Your task to perform on an android device: turn on the 12-hour format for clock Image 0: 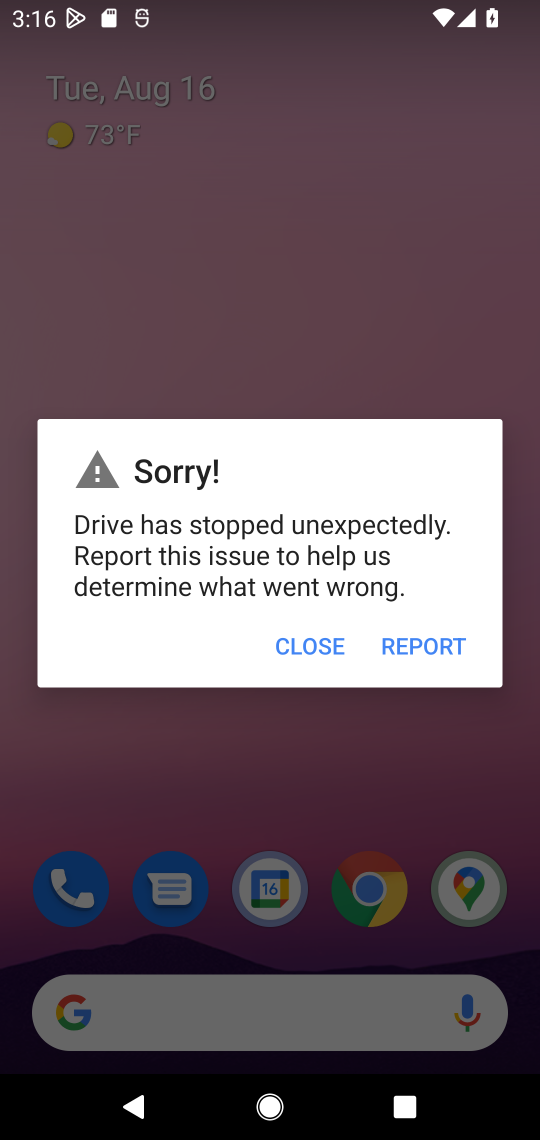
Step 0: click (295, 646)
Your task to perform on an android device: turn on the 12-hour format for clock Image 1: 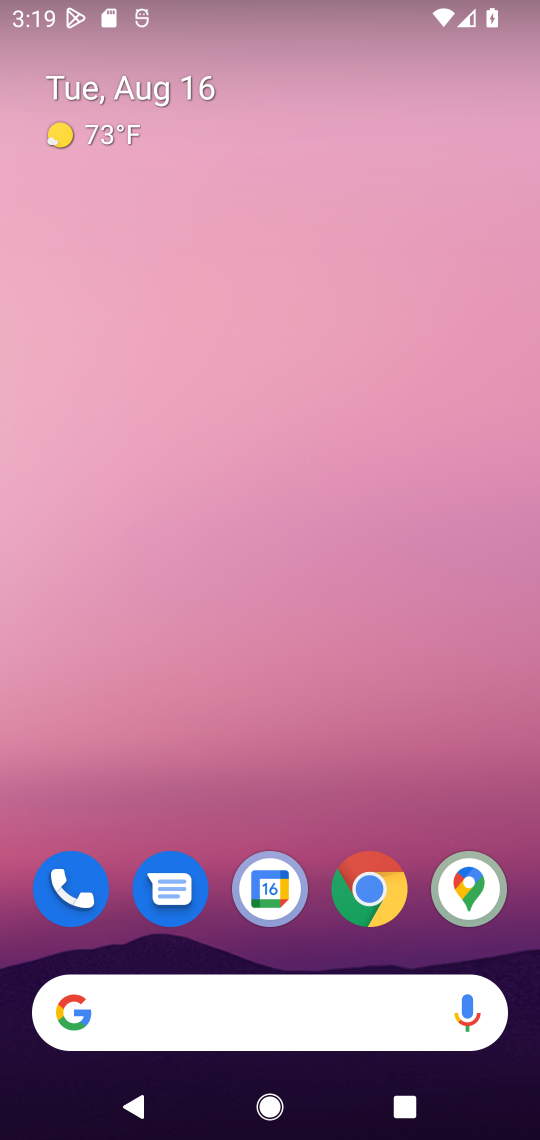
Step 1: drag from (259, 680) to (284, 510)
Your task to perform on an android device: turn on the 12-hour format for clock Image 2: 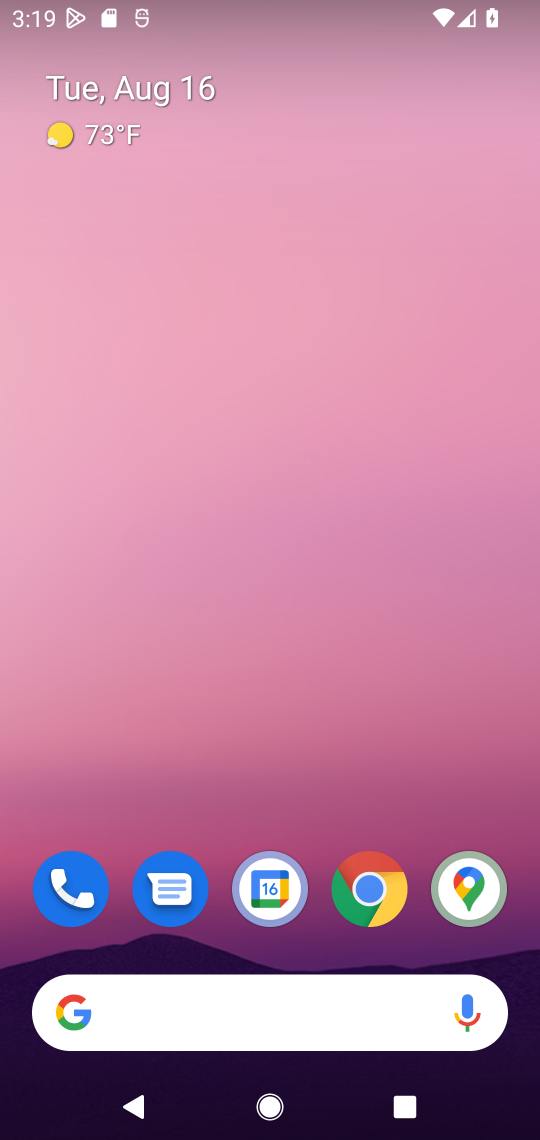
Step 2: drag from (235, 730) to (390, 110)
Your task to perform on an android device: turn on the 12-hour format for clock Image 3: 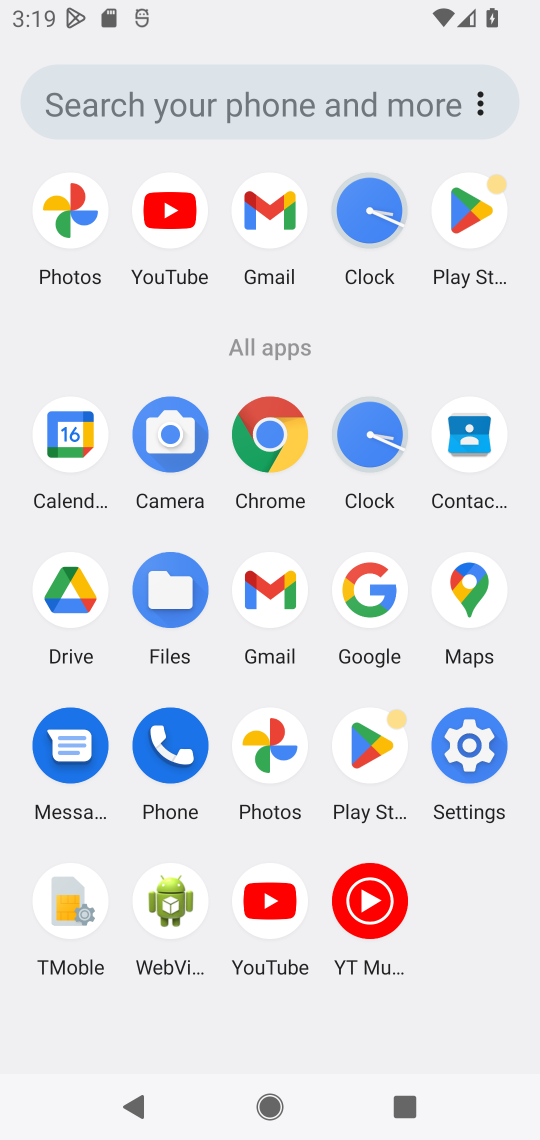
Step 3: click (379, 197)
Your task to perform on an android device: turn on the 12-hour format for clock Image 4: 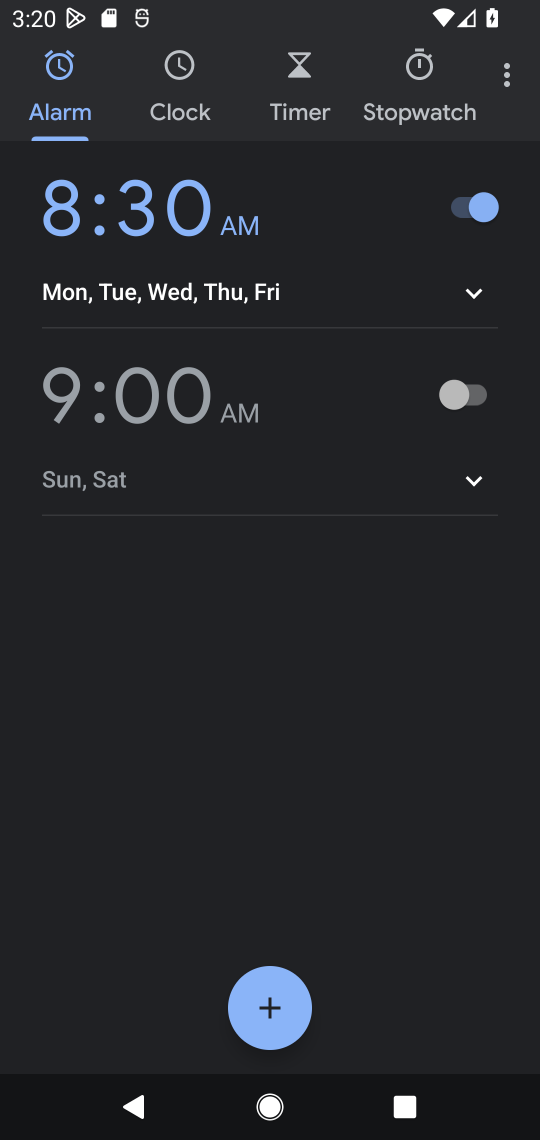
Step 4: task complete